Your task to perform on an android device: What is the recent news? Image 0: 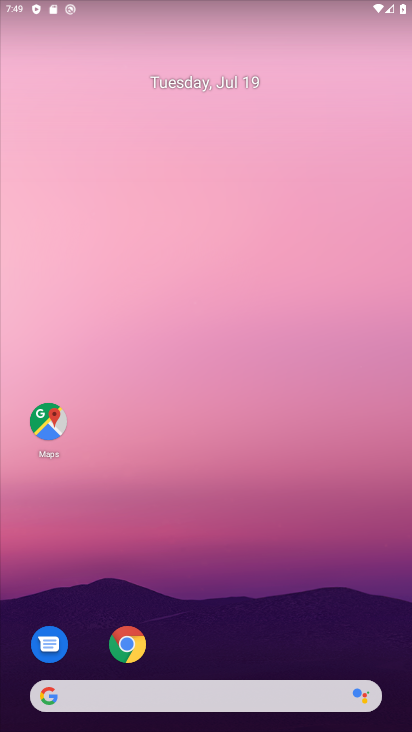
Step 0: click (211, 112)
Your task to perform on an android device: What is the recent news? Image 1: 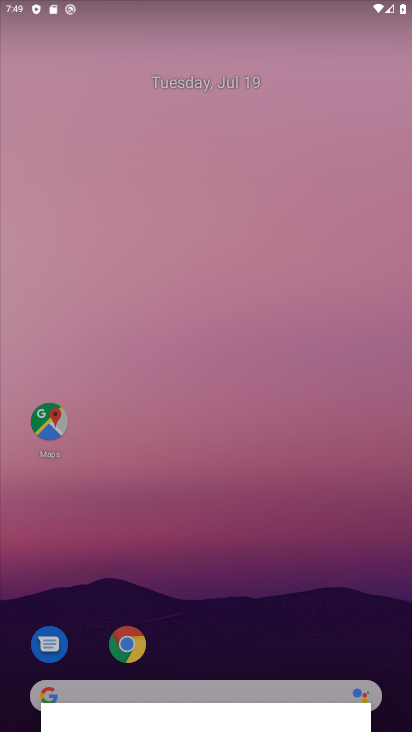
Step 1: drag from (245, 630) to (250, 79)
Your task to perform on an android device: What is the recent news? Image 2: 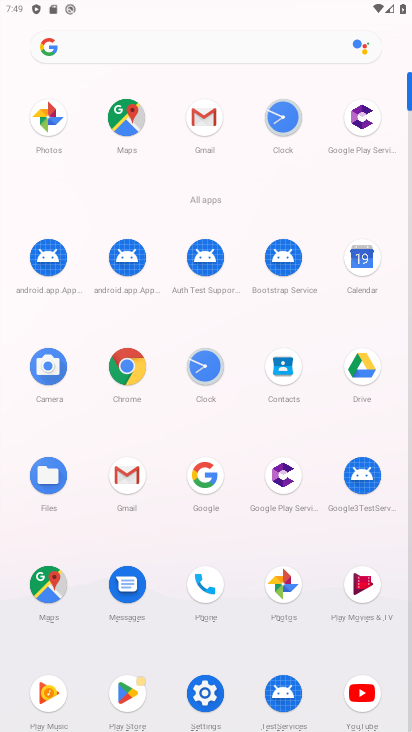
Step 2: click (123, 371)
Your task to perform on an android device: What is the recent news? Image 3: 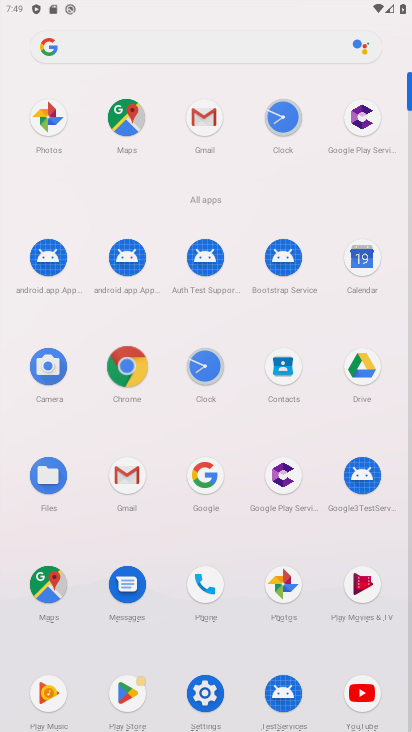
Step 3: click (123, 371)
Your task to perform on an android device: What is the recent news? Image 4: 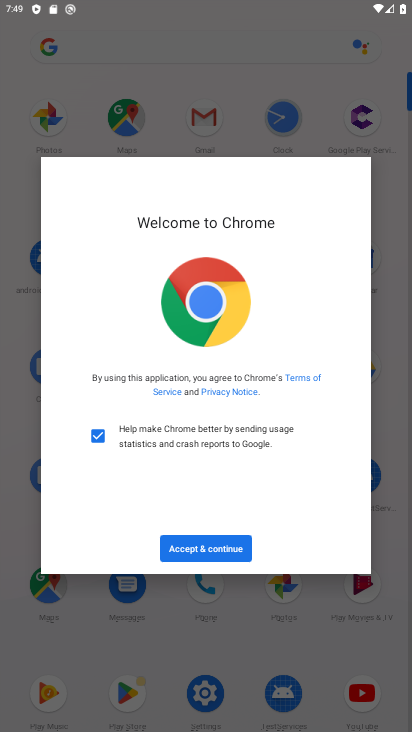
Step 4: click (204, 557)
Your task to perform on an android device: What is the recent news? Image 5: 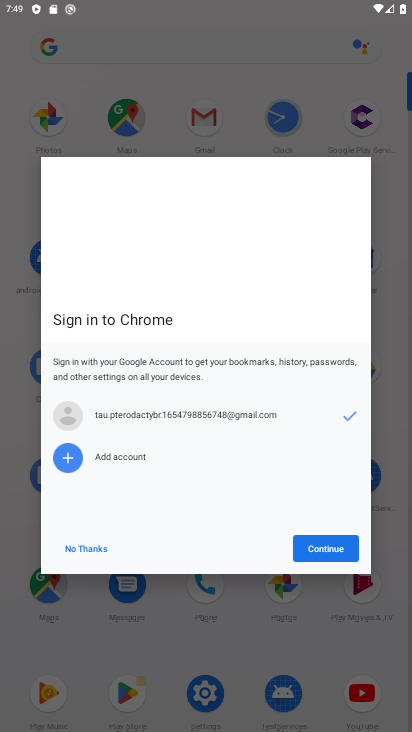
Step 5: click (207, 557)
Your task to perform on an android device: What is the recent news? Image 6: 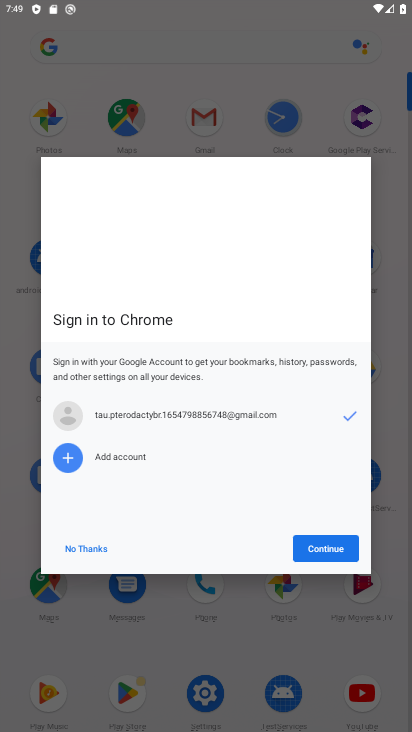
Step 6: click (208, 557)
Your task to perform on an android device: What is the recent news? Image 7: 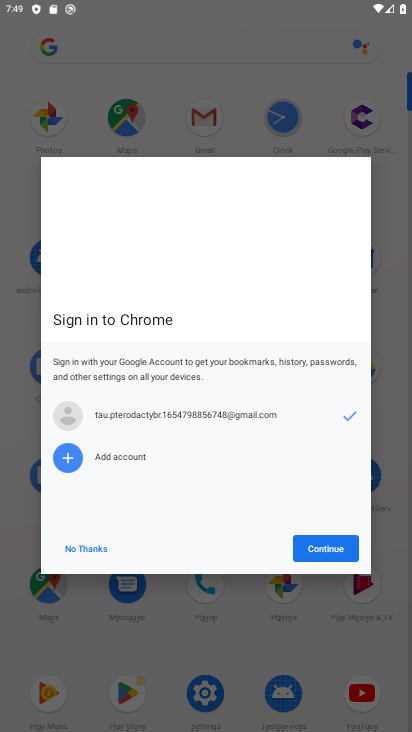
Step 7: click (319, 547)
Your task to perform on an android device: What is the recent news? Image 8: 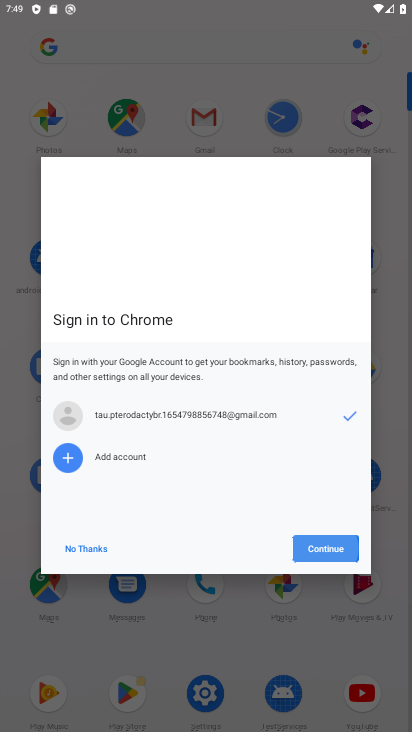
Step 8: click (321, 550)
Your task to perform on an android device: What is the recent news? Image 9: 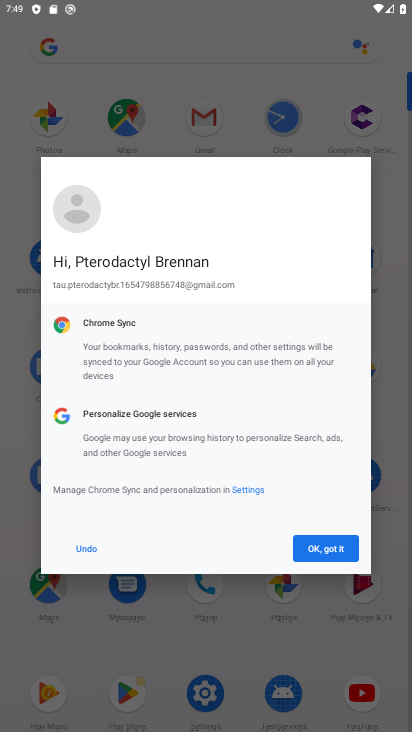
Step 9: click (85, 544)
Your task to perform on an android device: What is the recent news? Image 10: 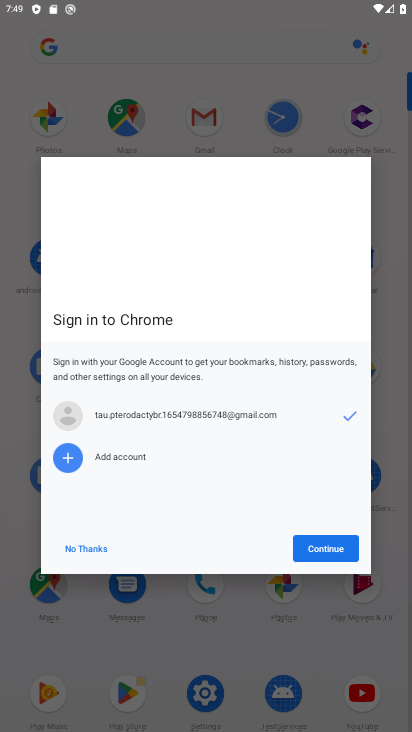
Step 10: click (89, 544)
Your task to perform on an android device: What is the recent news? Image 11: 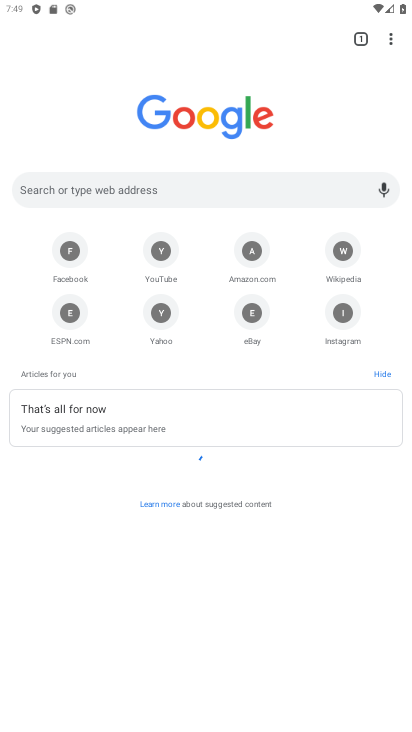
Step 11: task complete